Your task to perform on an android device: Play the last video I watched on Youtube Image 0: 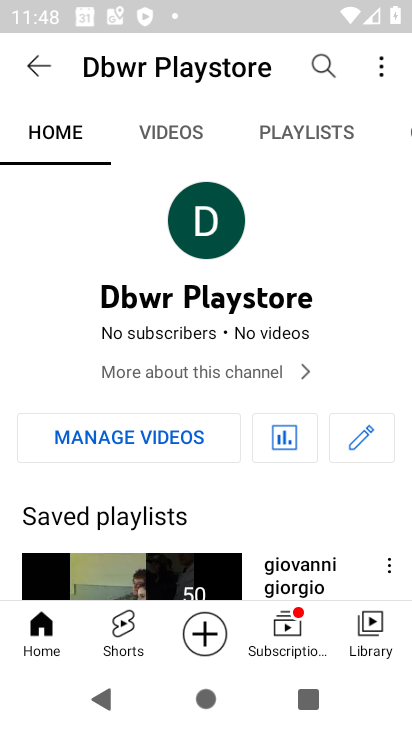
Step 0: press home button
Your task to perform on an android device: Play the last video I watched on Youtube Image 1: 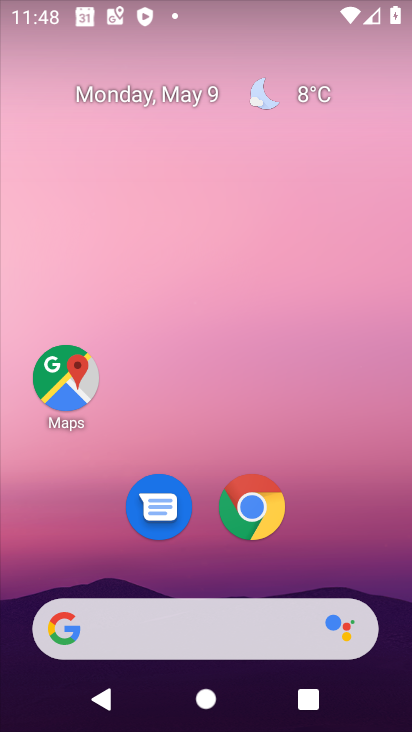
Step 1: drag from (313, 537) to (265, 142)
Your task to perform on an android device: Play the last video I watched on Youtube Image 2: 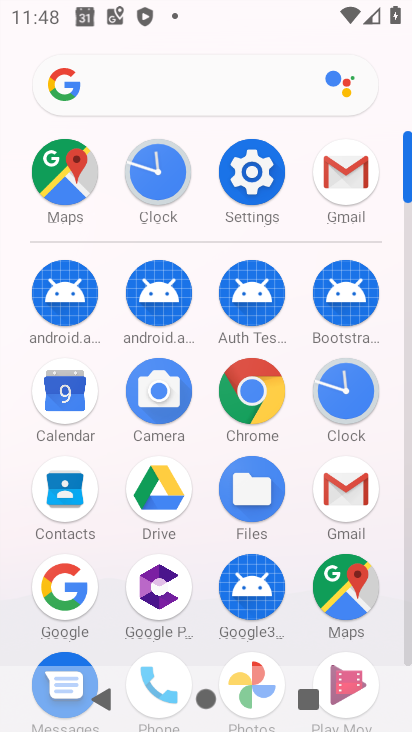
Step 2: drag from (286, 624) to (298, 357)
Your task to perform on an android device: Play the last video I watched on Youtube Image 3: 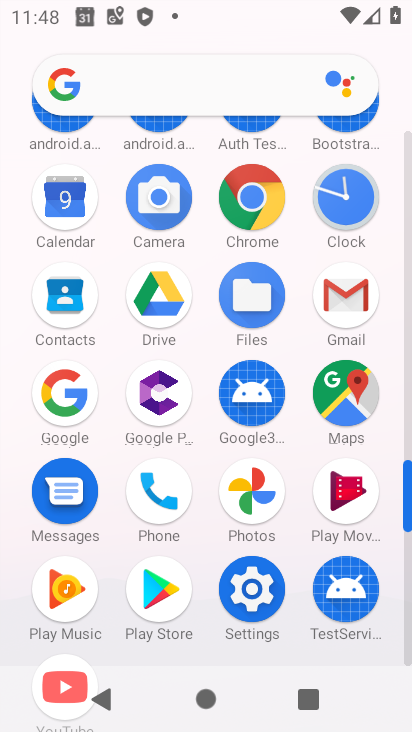
Step 3: drag from (113, 589) to (107, 434)
Your task to perform on an android device: Play the last video I watched on Youtube Image 4: 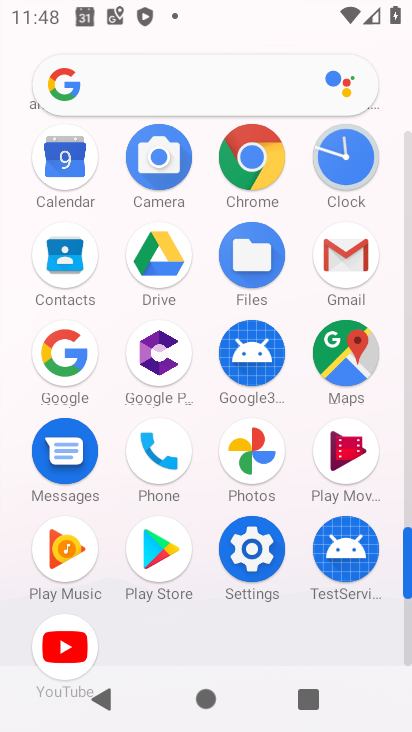
Step 4: click (74, 648)
Your task to perform on an android device: Play the last video I watched on Youtube Image 5: 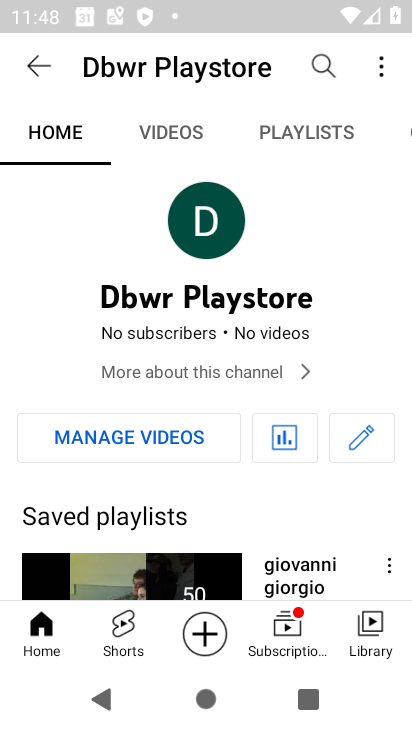
Step 5: click (363, 627)
Your task to perform on an android device: Play the last video I watched on Youtube Image 6: 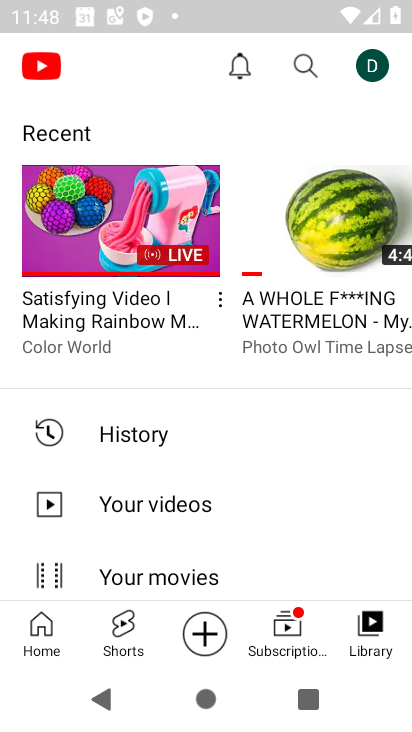
Step 6: click (113, 250)
Your task to perform on an android device: Play the last video I watched on Youtube Image 7: 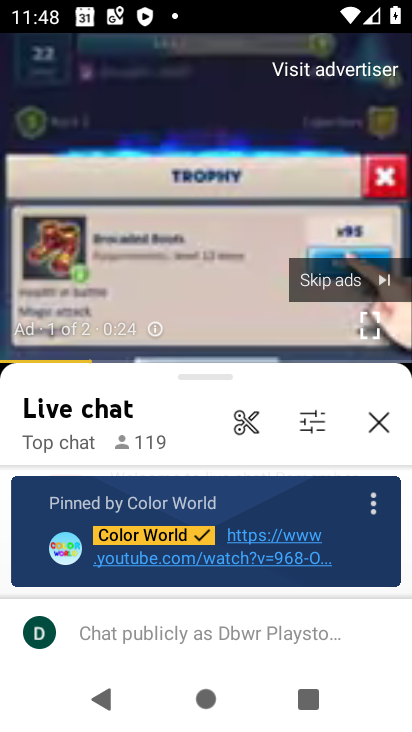
Step 7: click (351, 282)
Your task to perform on an android device: Play the last video I watched on Youtube Image 8: 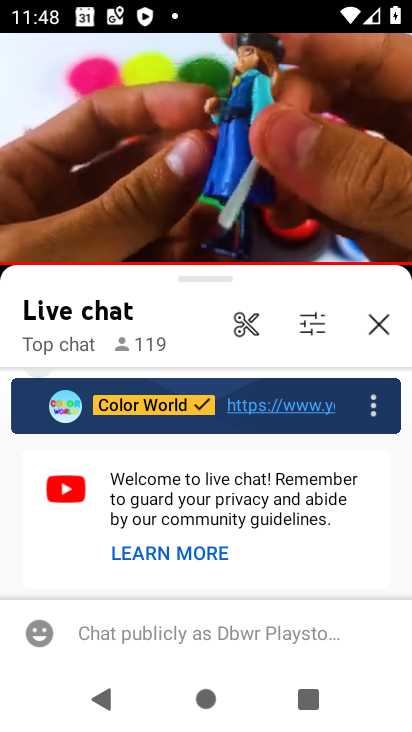
Step 8: task complete